Your task to perform on an android device: Open sound settings Image 0: 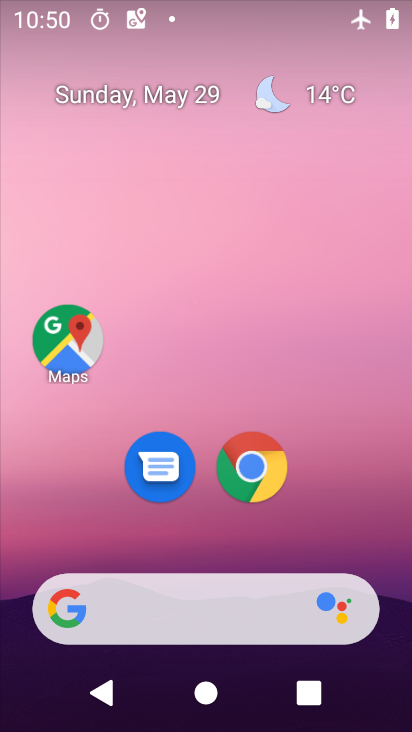
Step 0: drag from (193, 546) to (199, 196)
Your task to perform on an android device: Open sound settings Image 1: 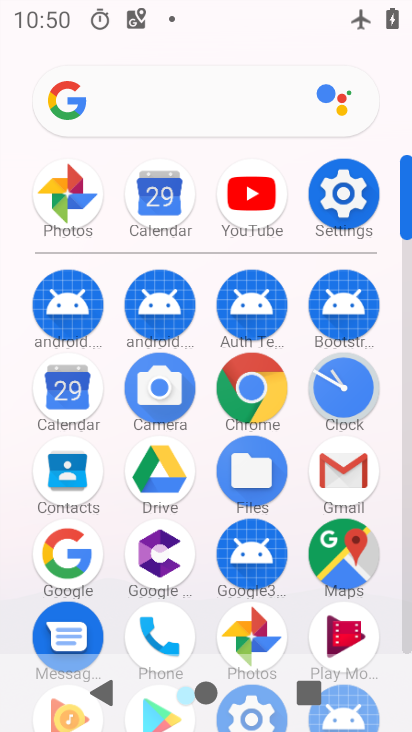
Step 1: click (318, 185)
Your task to perform on an android device: Open sound settings Image 2: 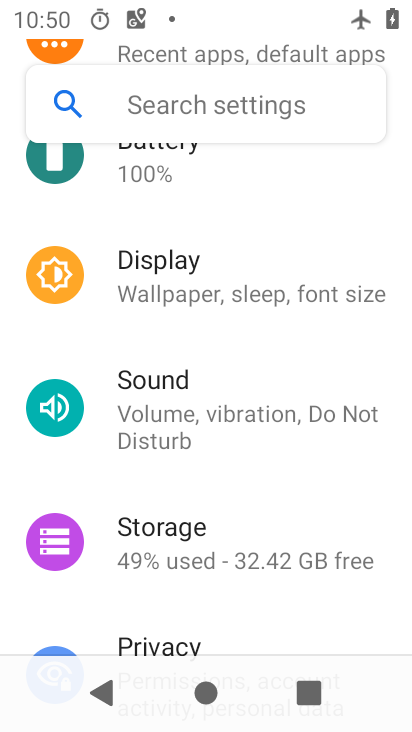
Step 2: click (239, 408)
Your task to perform on an android device: Open sound settings Image 3: 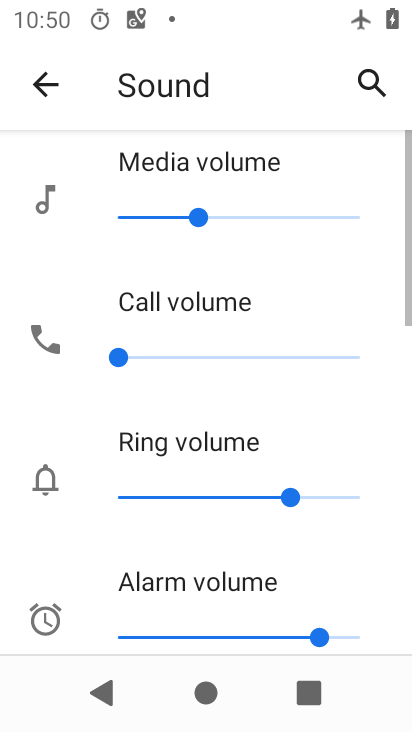
Step 3: task complete